Your task to perform on an android device: Search for pizza restaurants on Maps Image 0: 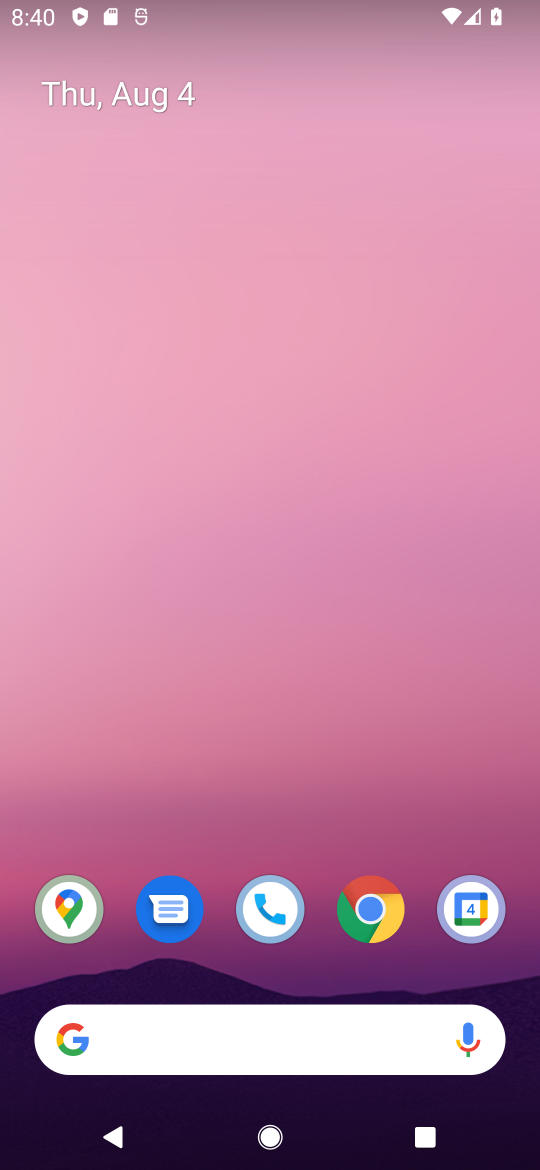
Step 0: press home button
Your task to perform on an android device: Search for pizza restaurants on Maps Image 1: 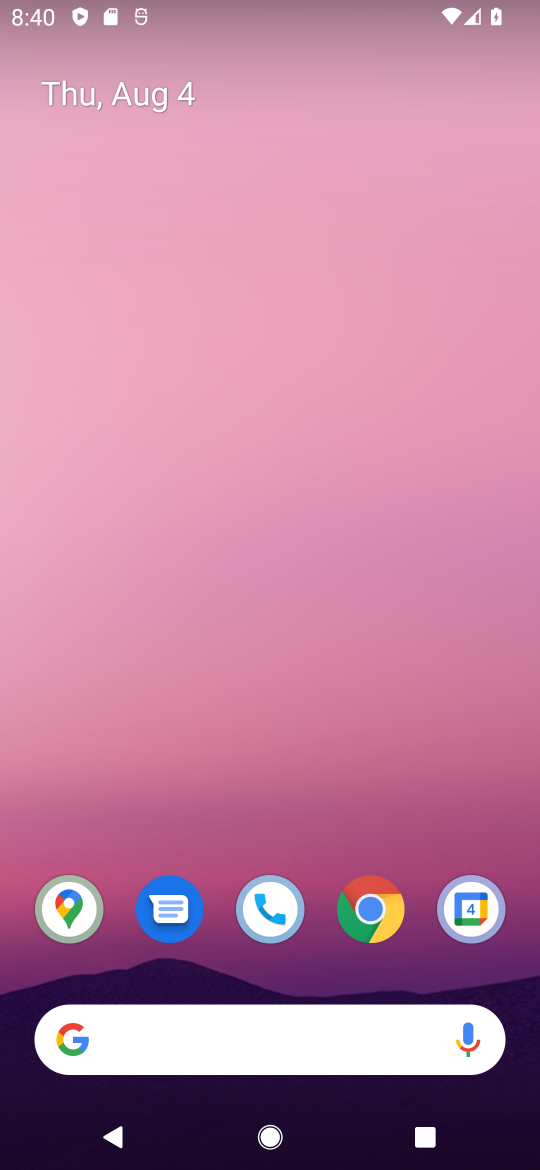
Step 1: drag from (310, 881) to (325, 363)
Your task to perform on an android device: Search for pizza restaurants on Maps Image 2: 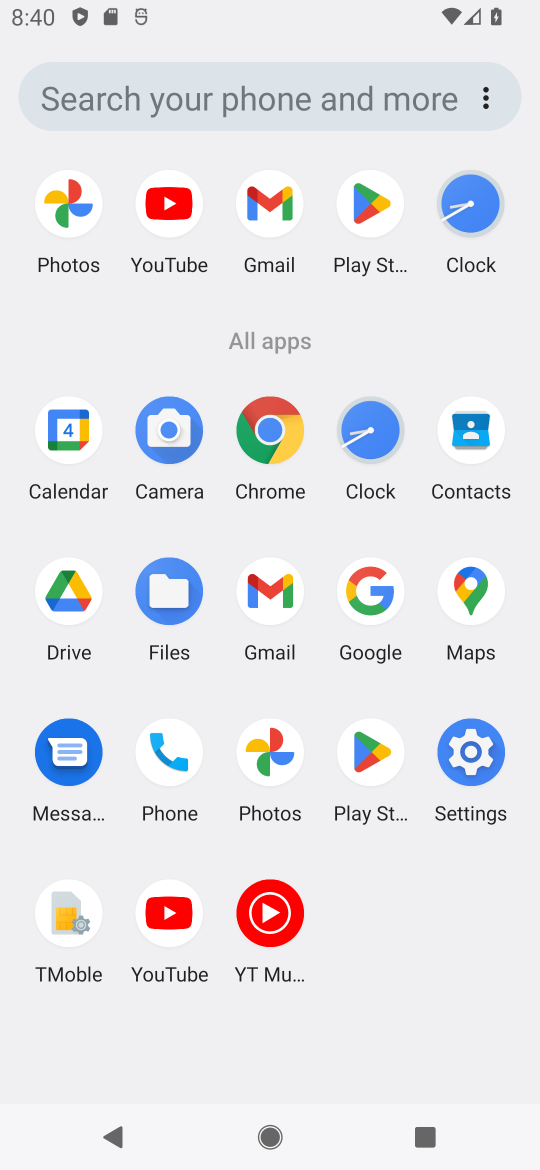
Step 2: click (472, 585)
Your task to perform on an android device: Search for pizza restaurants on Maps Image 3: 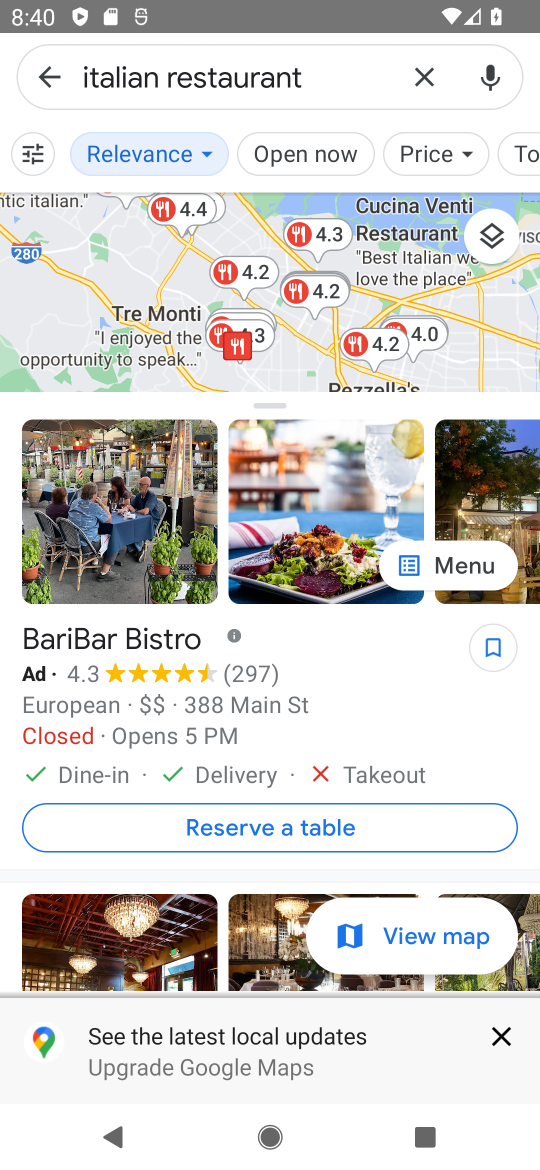
Step 3: click (430, 58)
Your task to perform on an android device: Search for pizza restaurants on Maps Image 4: 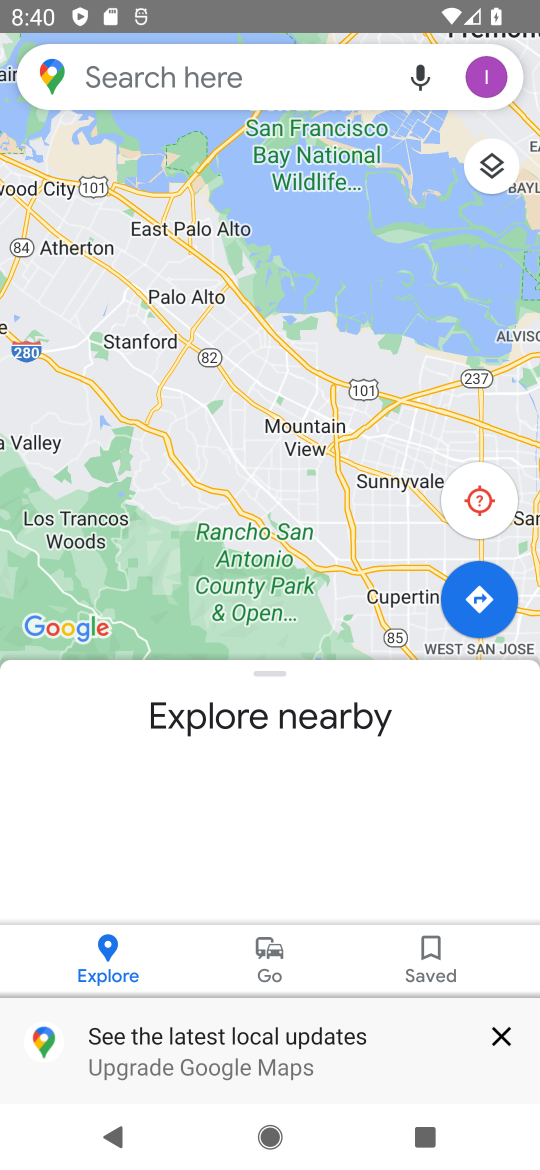
Step 4: click (280, 73)
Your task to perform on an android device: Search for pizza restaurants on Maps Image 5: 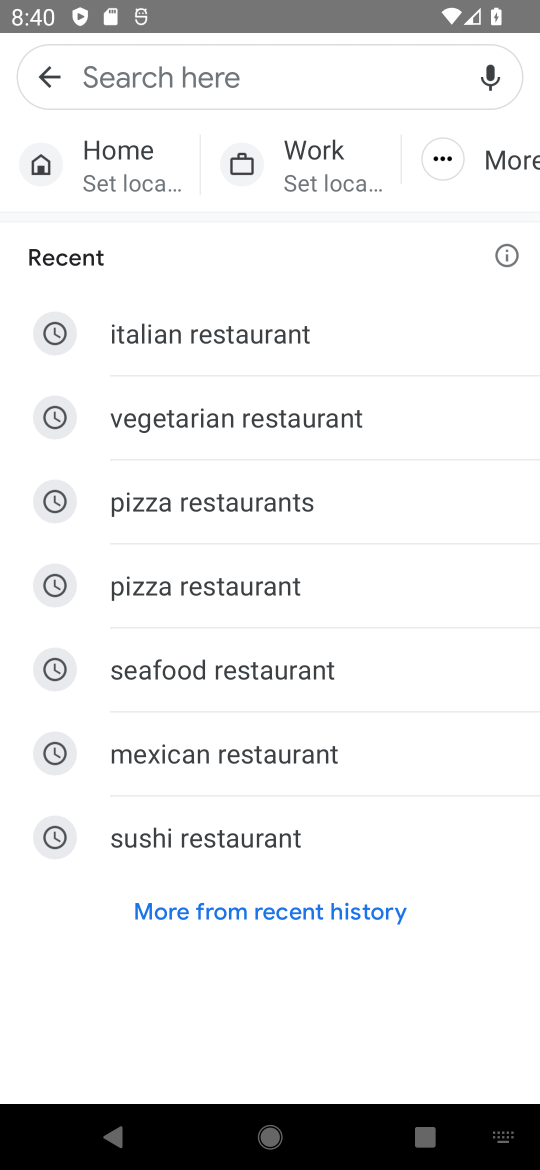
Step 5: type "pizza restaurants"
Your task to perform on an android device: Search for pizza restaurants on Maps Image 6: 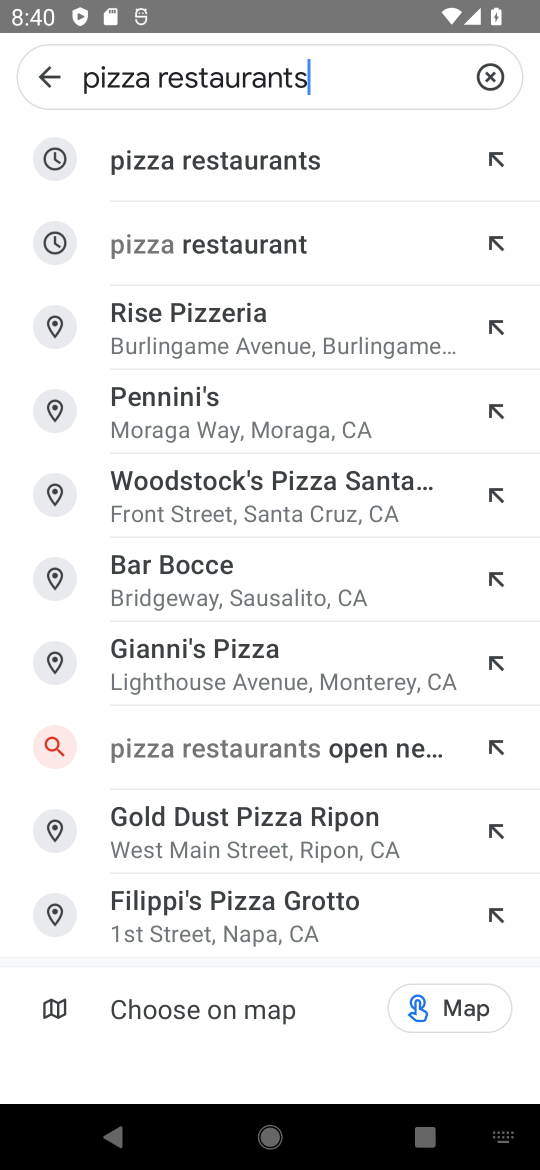
Step 6: click (344, 164)
Your task to perform on an android device: Search for pizza restaurants on Maps Image 7: 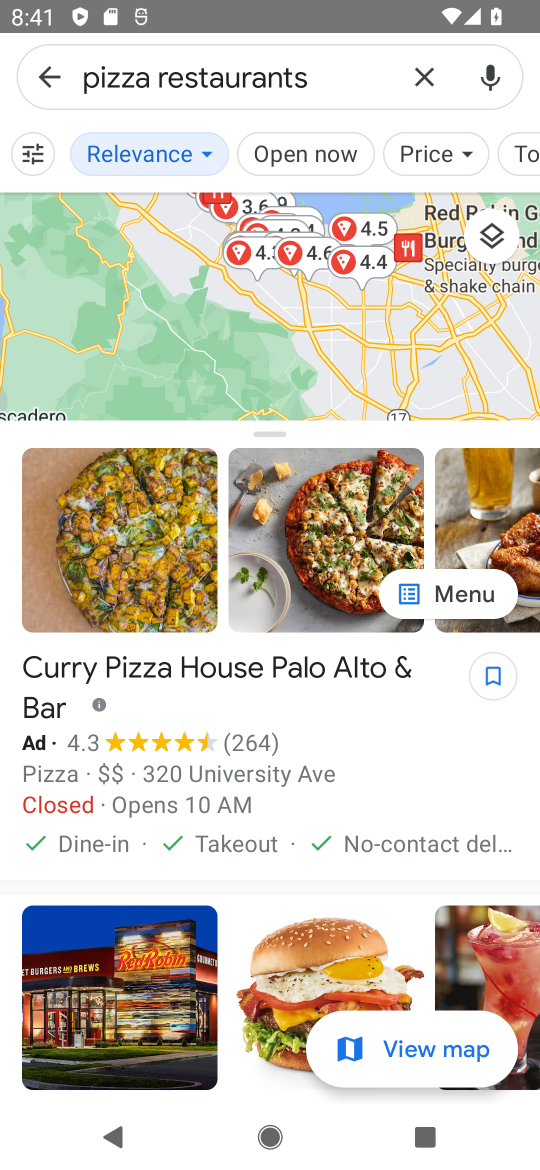
Step 7: task complete